Your task to perform on an android device: turn on priority inbox in the gmail app Image 0: 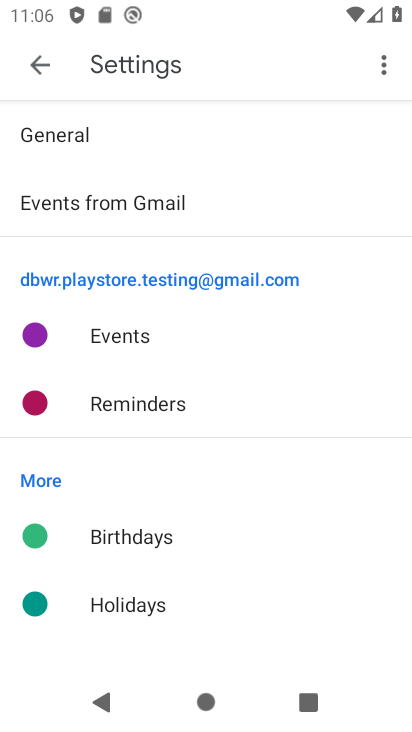
Step 0: press home button
Your task to perform on an android device: turn on priority inbox in the gmail app Image 1: 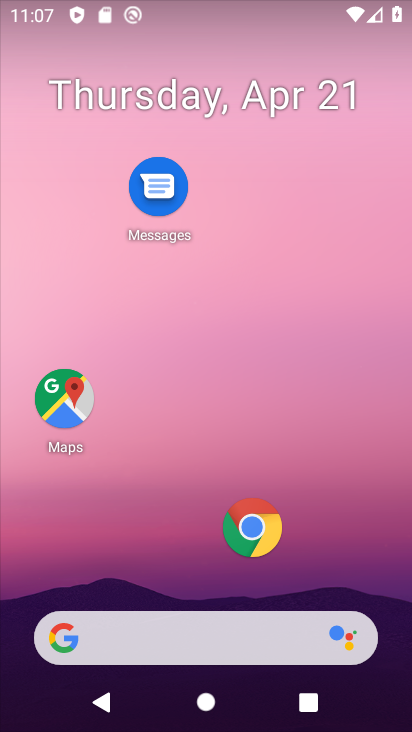
Step 1: drag from (277, 562) to (264, 17)
Your task to perform on an android device: turn on priority inbox in the gmail app Image 2: 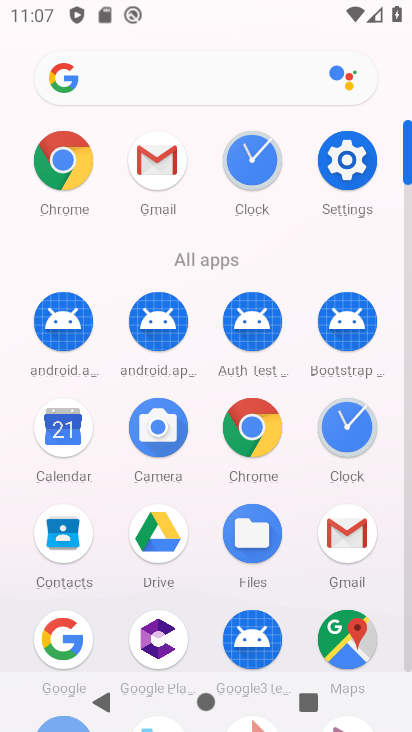
Step 2: click (337, 539)
Your task to perform on an android device: turn on priority inbox in the gmail app Image 3: 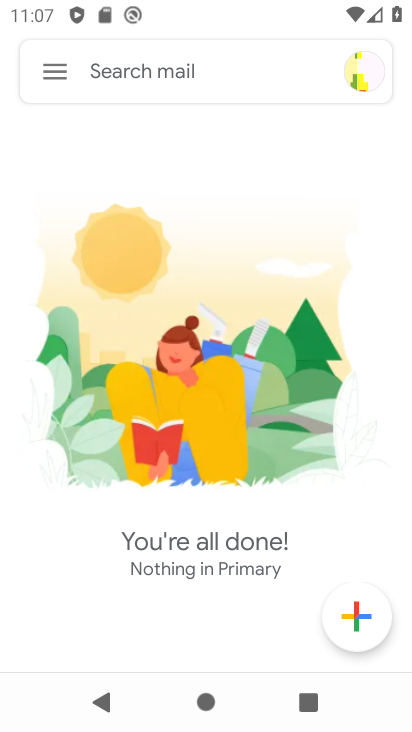
Step 3: click (48, 75)
Your task to perform on an android device: turn on priority inbox in the gmail app Image 4: 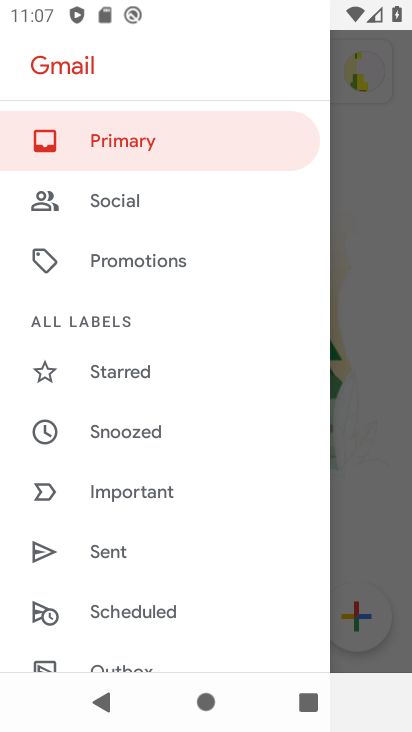
Step 4: drag from (254, 528) to (203, 17)
Your task to perform on an android device: turn on priority inbox in the gmail app Image 5: 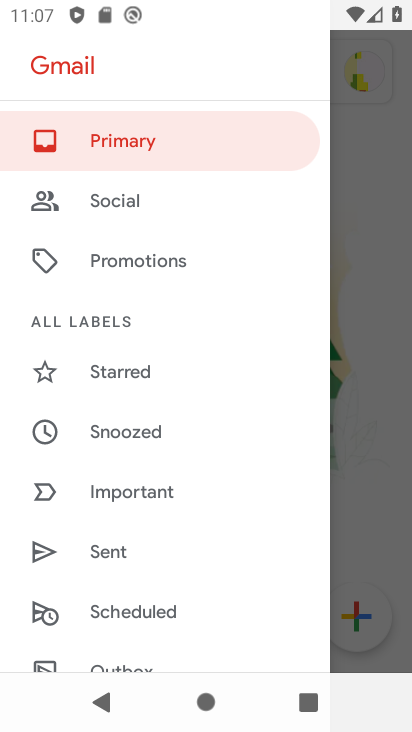
Step 5: drag from (214, 584) to (192, 101)
Your task to perform on an android device: turn on priority inbox in the gmail app Image 6: 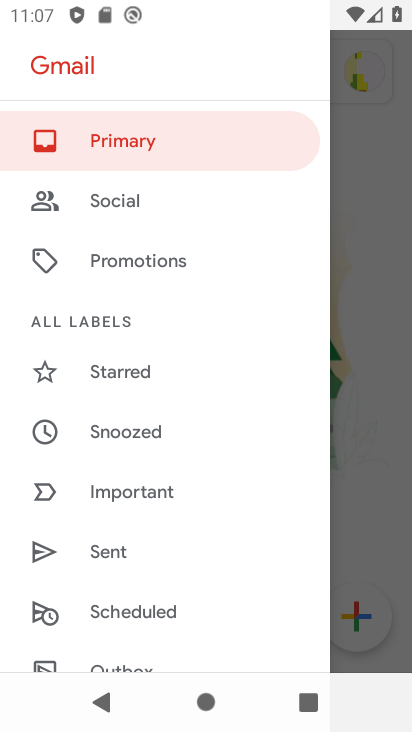
Step 6: drag from (216, 559) to (212, 94)
Your task to perform on an android device: turn on priority inbox in the gmail app Image 7: 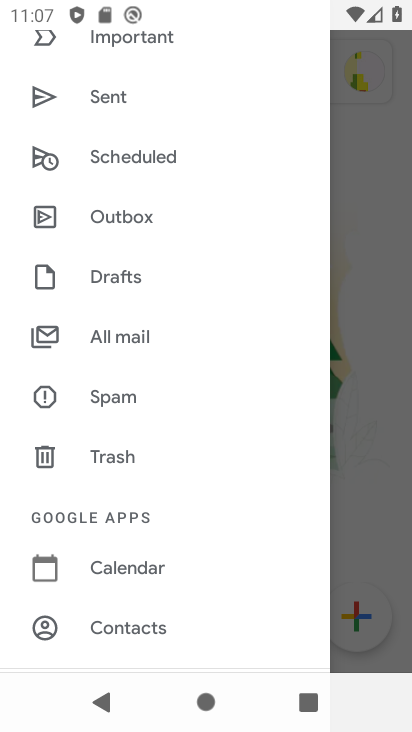
Step 7: drag from (112, 647) to (73, 304)
Your task to perform on an android device: turn on priority inbox in the gmail app Image 8: 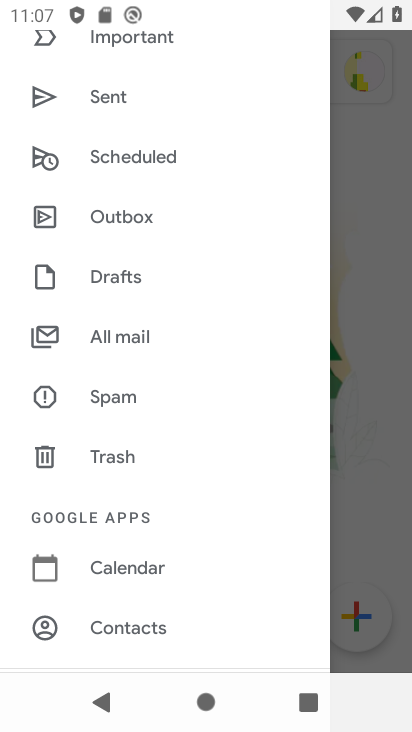
Step 8: drag from (181, 548) to (169, 134)
Your task to perform on an android device: turn on priority inbox in the gmail app Image 9: 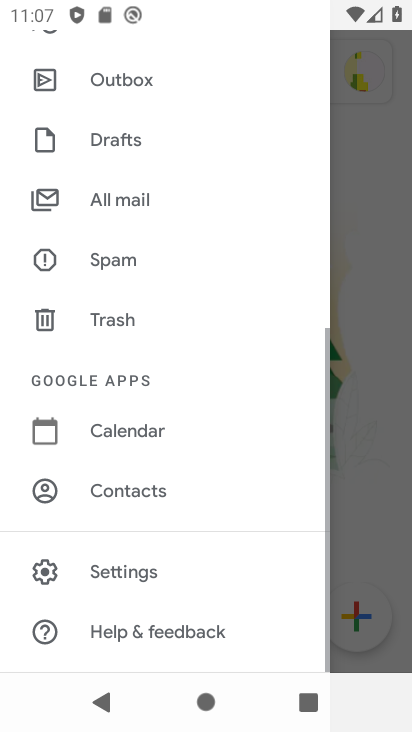
Step 9: click (138, 561)
Your task to perform on an android device: turn on priority inbox in the gmail app Image 10: 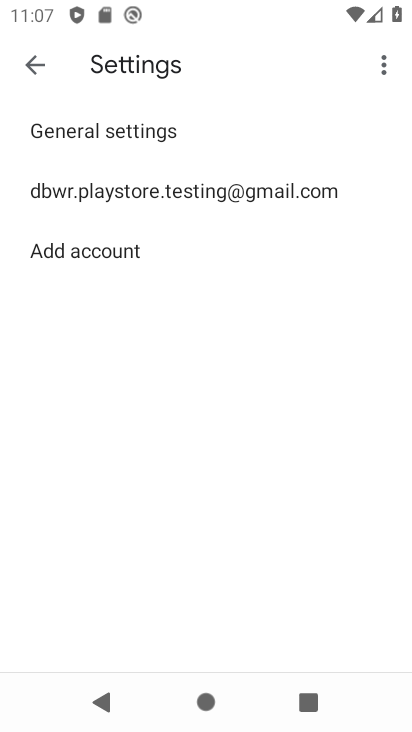
Step 10: click (102, 182)
Your task to perform on an android device: turn on priority inbox in the gmail app Image 11: 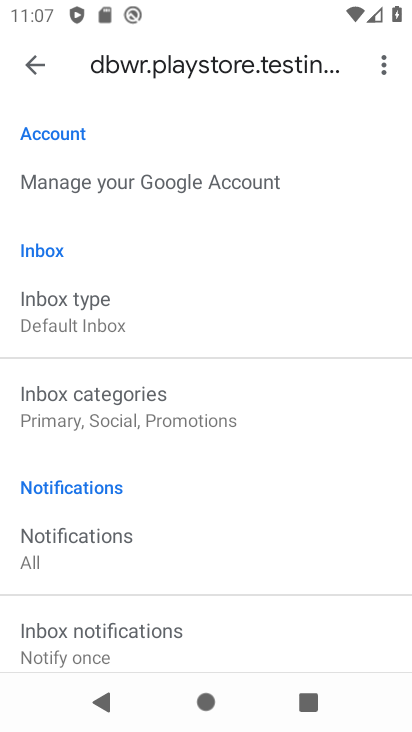
Step 11: click (80, 318)
Your task to perform on an android device: turn on priority inbox in the gmail app Image 12: 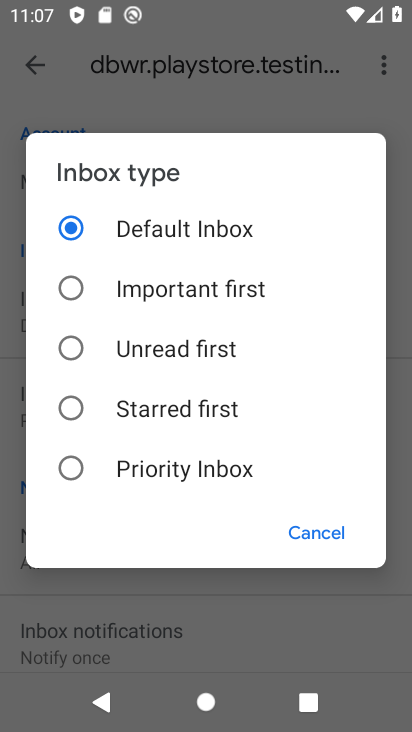
Step 12: click (133, 468)
Your task to perform on an android device: turn on priority inbox in the gmail app Image 13: 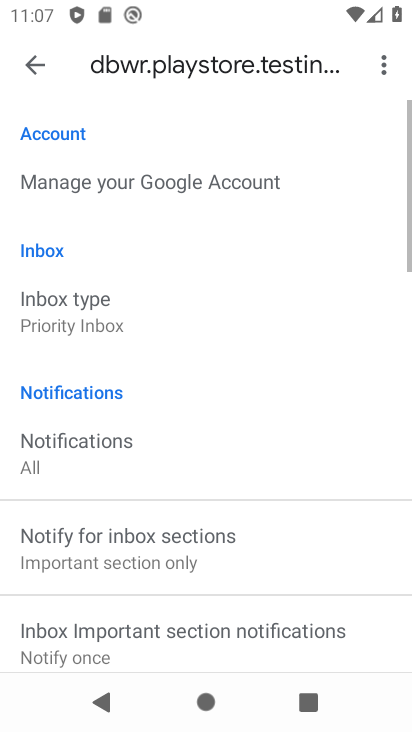
Step 13: task complete